Your task to perform on an android device: toggle improve location accuracy Image 0: 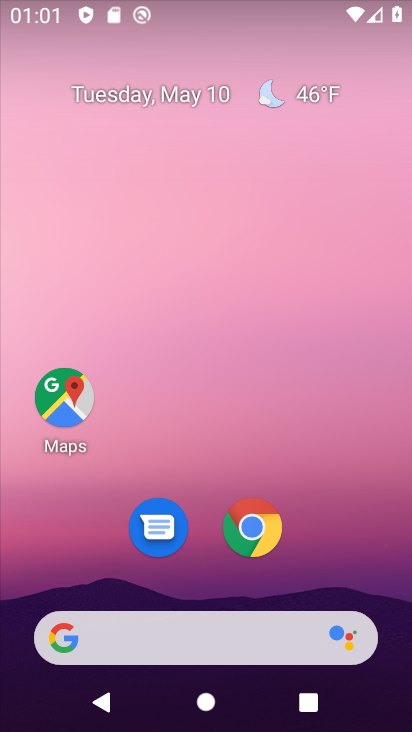
Step 0: drag from (338, 570) to (237, 195)
Your task to perform on an android device: toggle improve location accuracy Image 1: 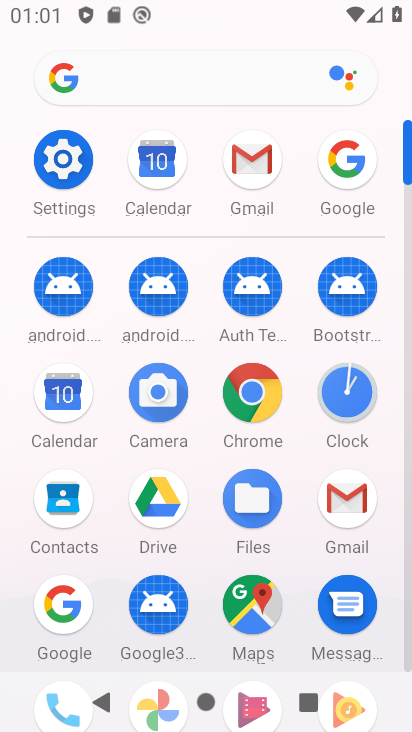
Step 1: click (69, 172)
Your task to perform on an android device: toggle improve location accuracy Image 2: 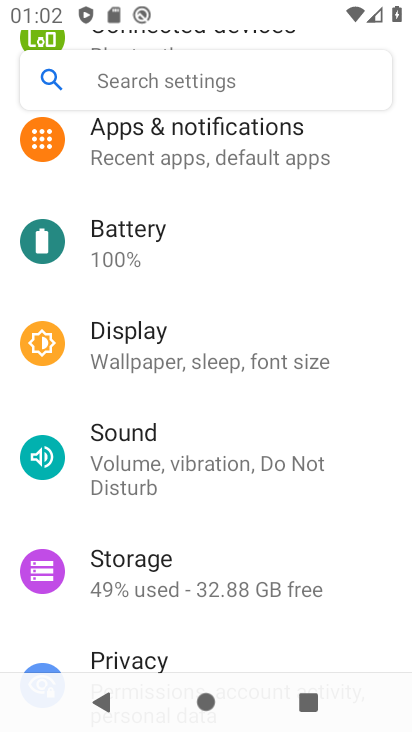
Step 2: drag from (208, 629) to (201, 394)
Your task to perform on an android device: toggle improve location accuracy Image 3: 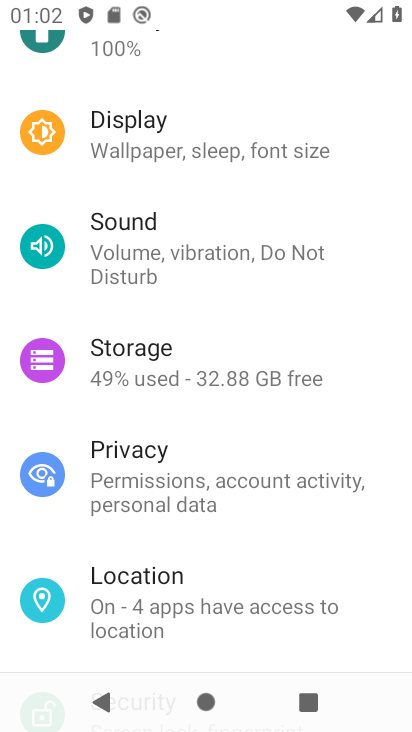
Step 3: click (111, 588)
Your task to perform on an android device: toggle improve location accuracy Image 4: 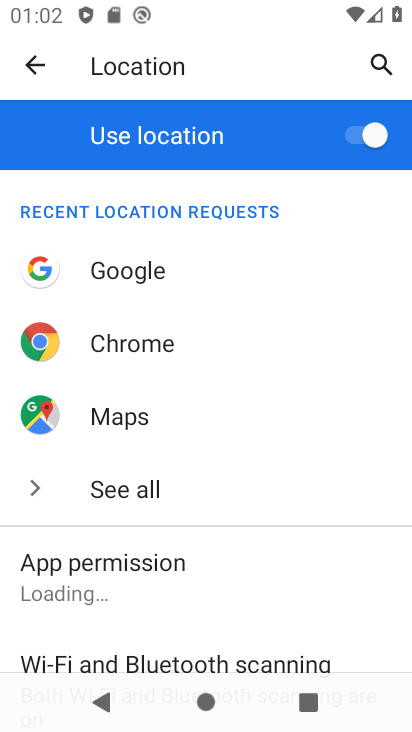
Step 4: drag from (185, 632) to (189, 447)
Your task to perform on an android device: toggle improve location accuracy Image 5: 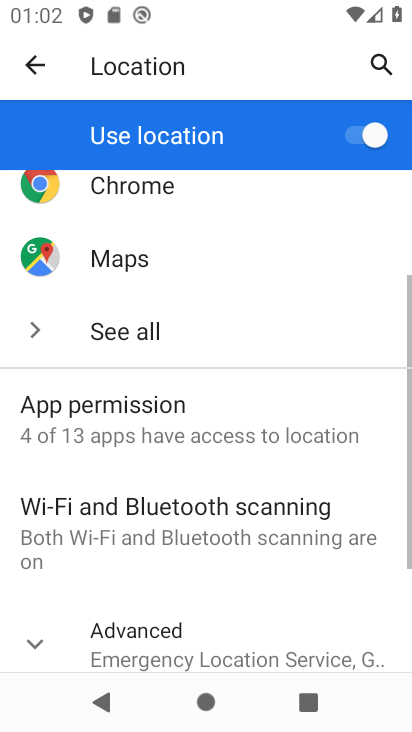
Step 5: click (146, 638)
Your task to perform on an android device: toggle improve location accuracy Image 6: 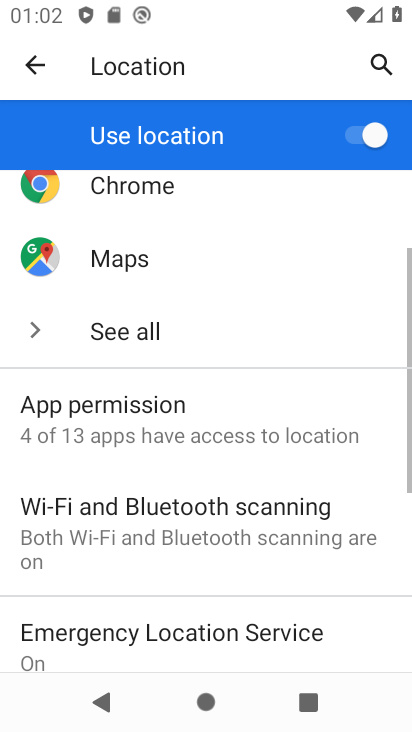
Step 6: drag from (146, 633) to (163, 450)
Your task to perform on an android device: toggle improve location accuracy Image 7: 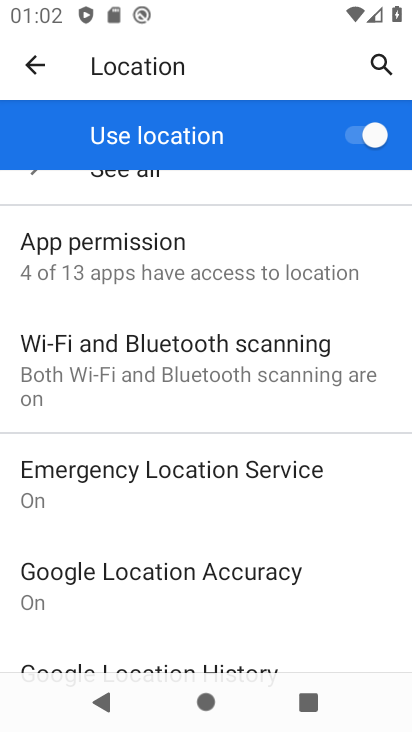
Step 7: click (55, 580)
Your task to perform on an android device: toggle improve location accuracy Image 8: 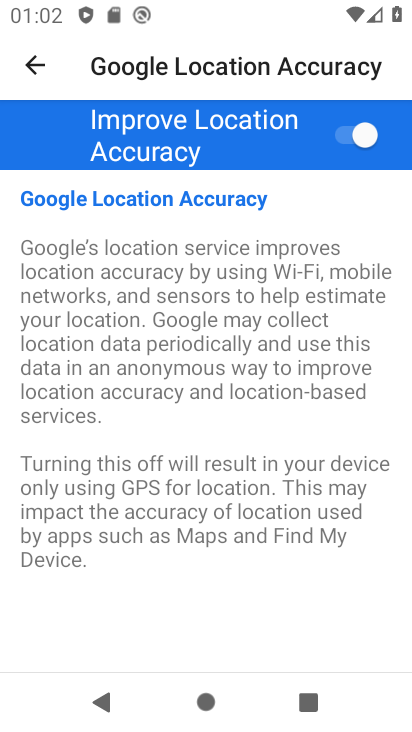
Step 8: click (371, 140)
Your task to perform on an android device: toggle improve location accuracy Image 9: 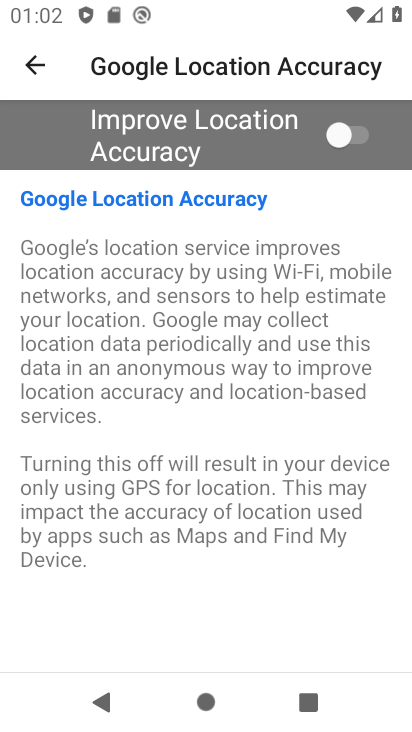
Step 9: task complete